Your task to perform on an android device: Open eBay Image 0: 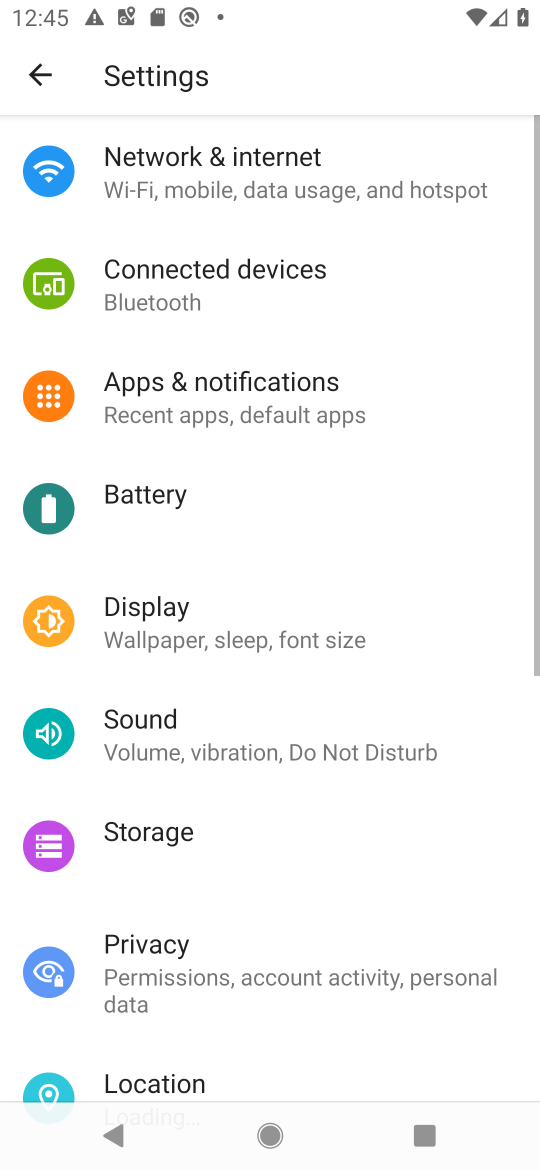
Step 0: press home button
Your task to perform on an android device: Open eBay Image 1: 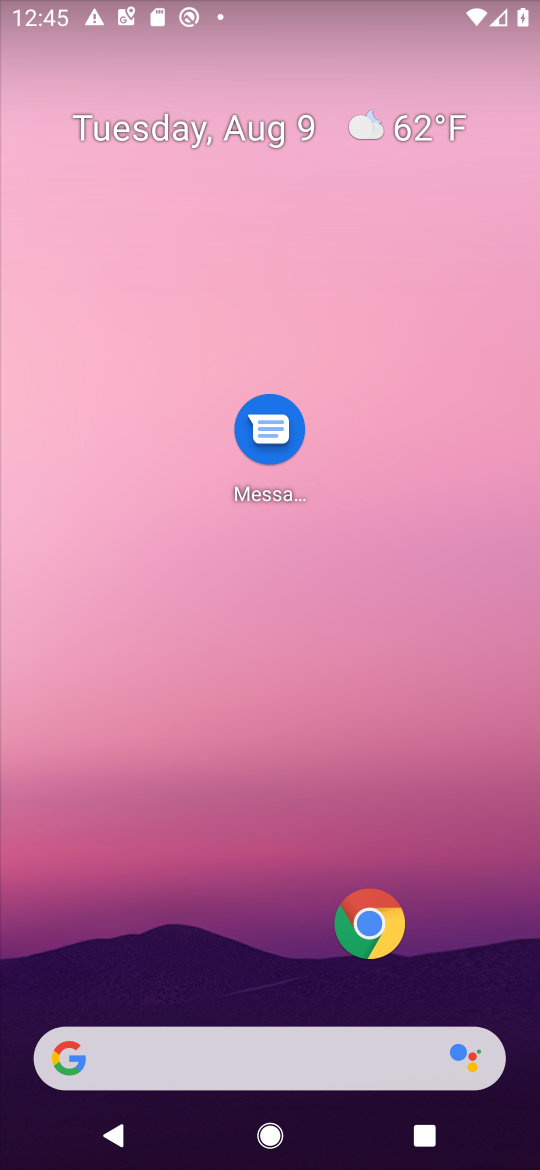
Step 1: click (179, 1064)
Your task to perform on an android device: Open eBay Image 2: 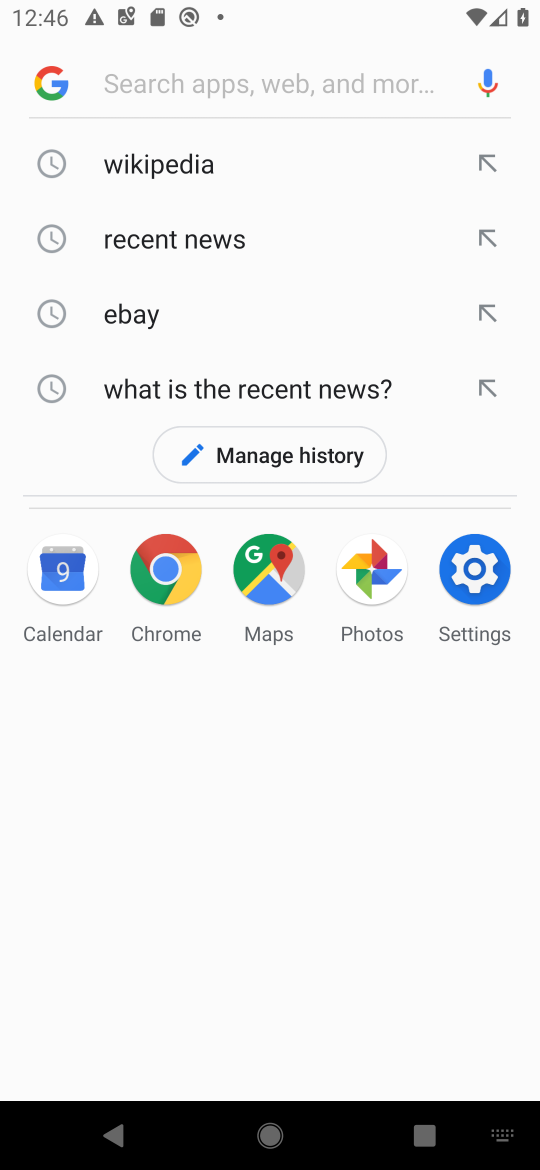
Step 2: click (150, 322)
Your task to perform on an android device: Open eBay Image 3: 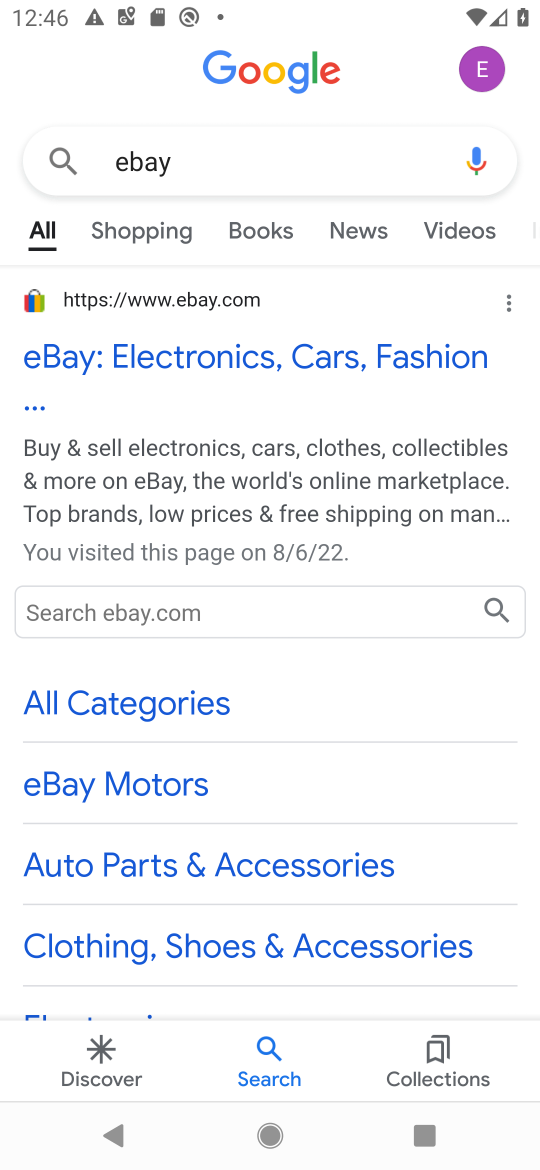
Step 3: task complete